Your task to perform on an android device: Do I have any events tomorrow? Image 0: 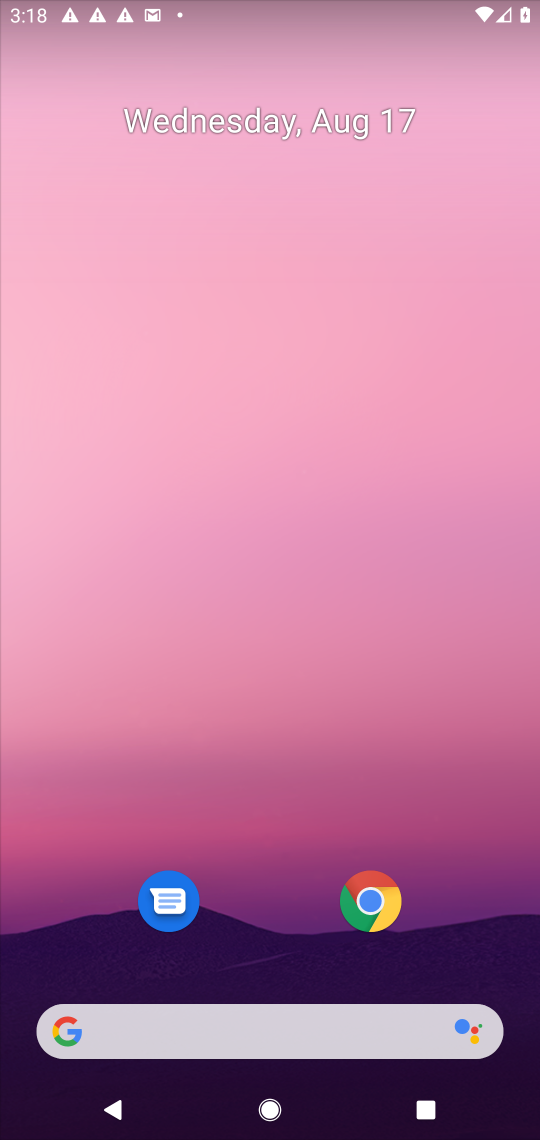
Step 0: drag from (139, 982) to (252, 391)
Your task to perform on an android device: Do I have any events tomorrow? Image 1: 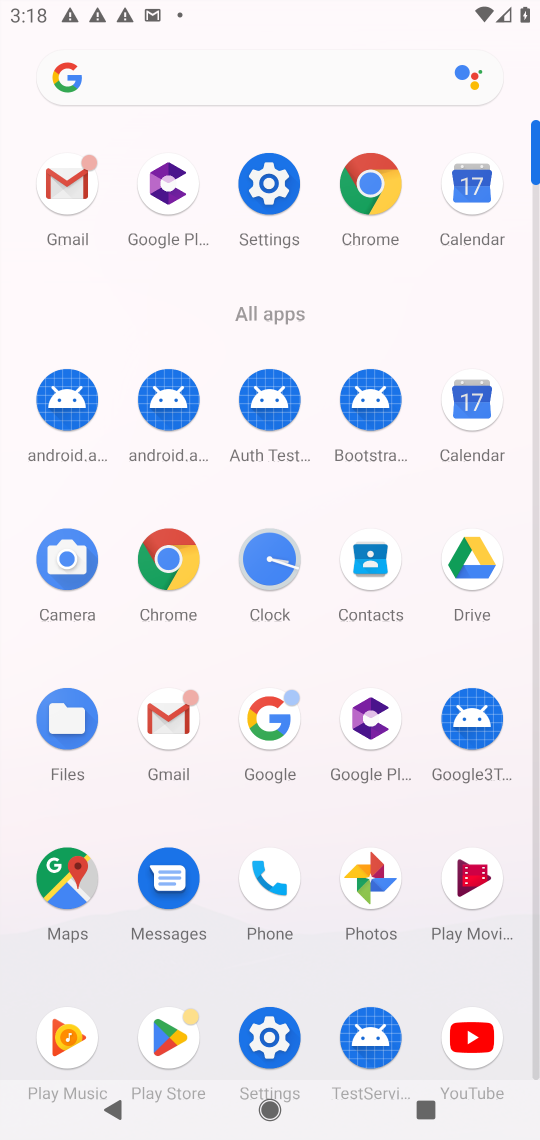
Step 1: click (479, 412)
Your task to perform on an android device: Do I have any events tomorrow? Image 2: 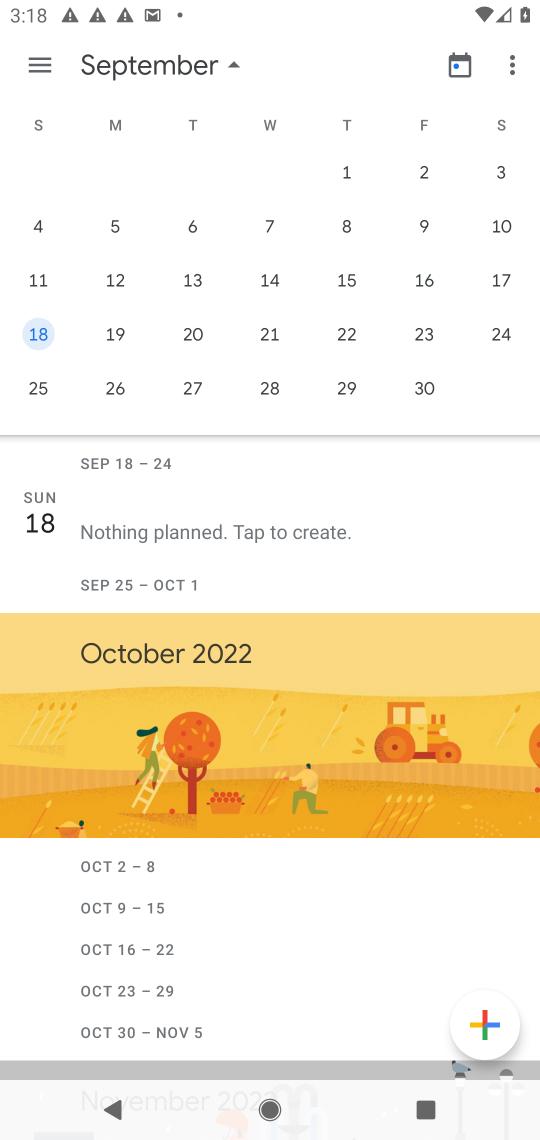
Step 2: click (123, 331)
Your task to perform on an android device: Do I have any events tomorrow? Image 3: 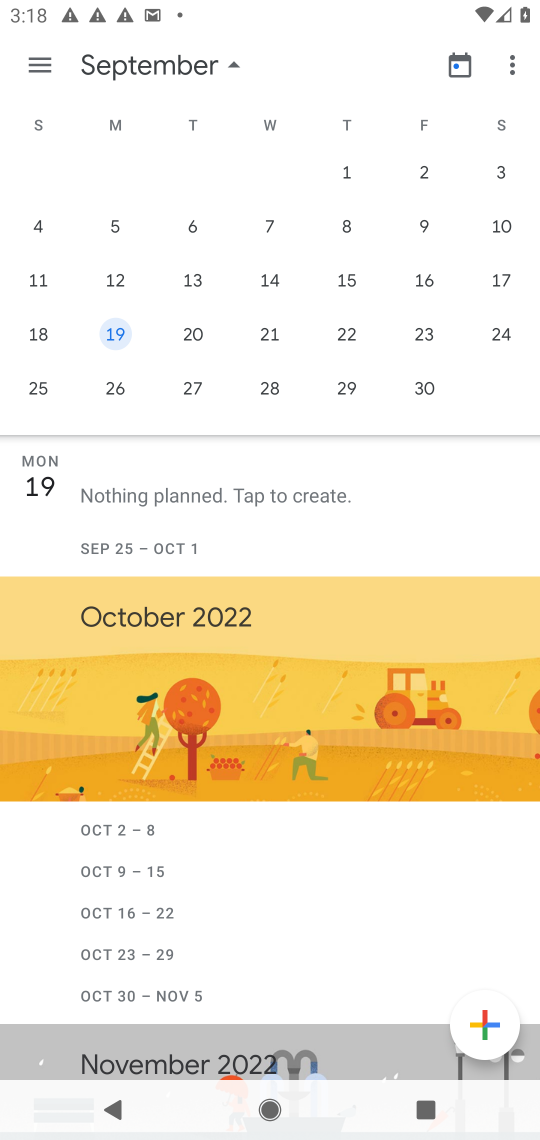
Step 3: click (132, 57)
Your task to perform on an android device: Do I have any events tomorrow? Image 4: 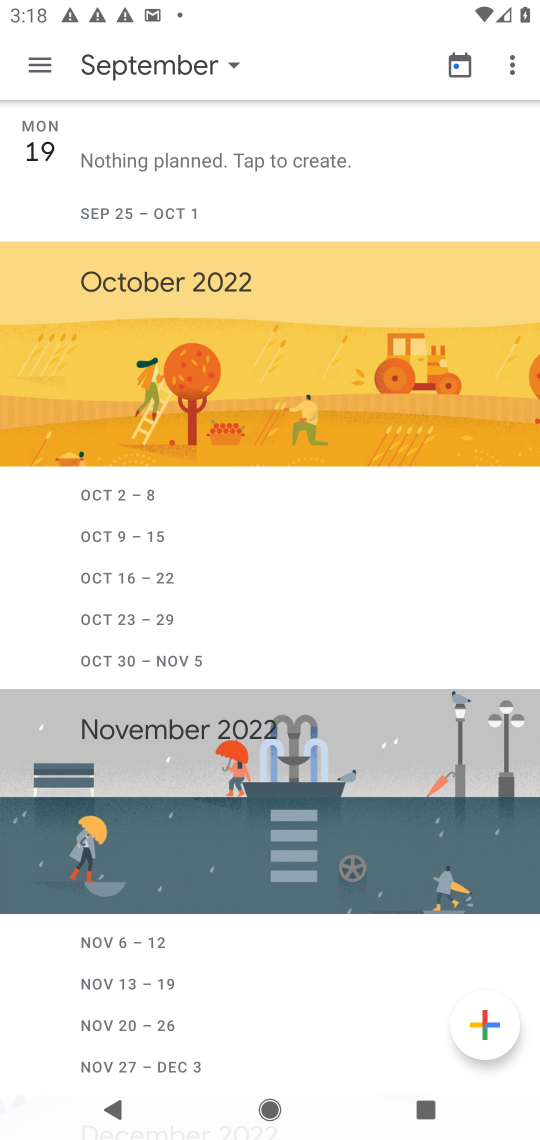
Step 4: click (180, 62)
Your task to perform on an android device: Do I have any events tomorrow? Image 5: 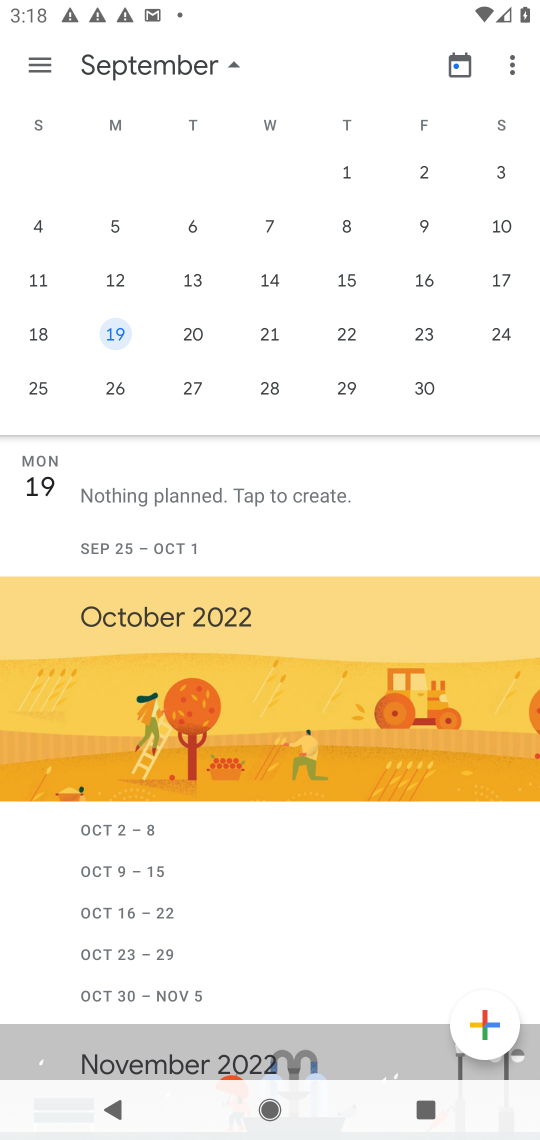
Step 5: drag from (38, 364) to (458, 305)
Your task to perform on an android device: Do I have any events tomorrow? Image 6: 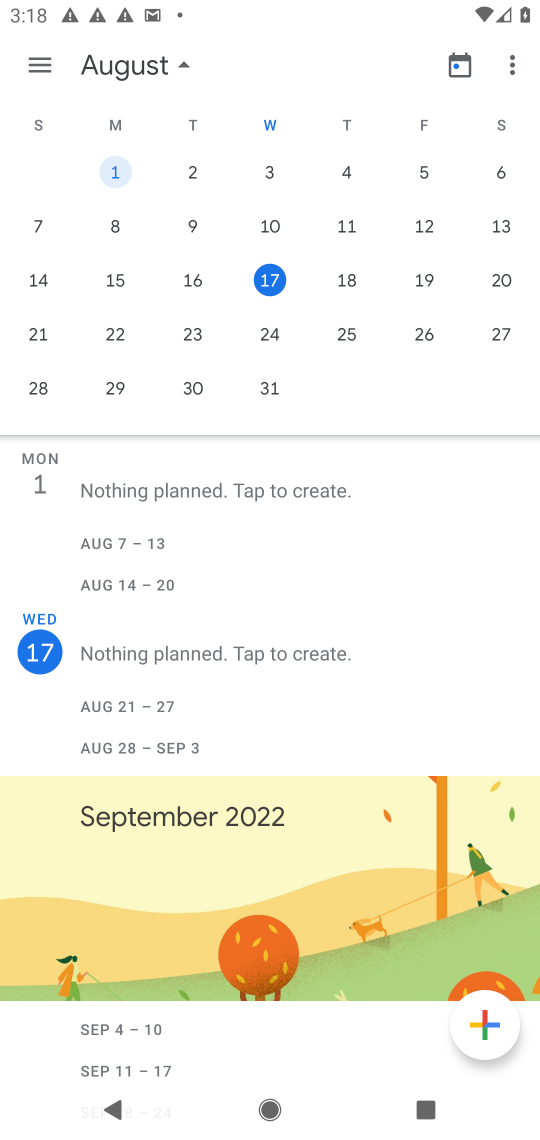
Step 6: click (343, 288)
Your task to perform on an android device: Do I have any events tomorrow? Image 7: 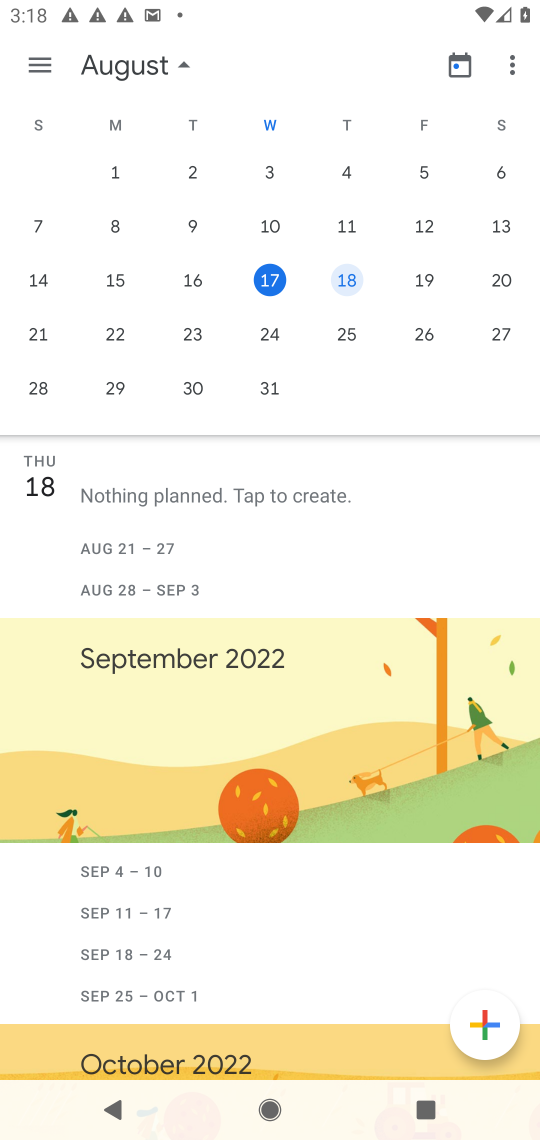
Step 7: task complete